Your task to perform on an android device: turn pop-ups off in chrome Image 0: 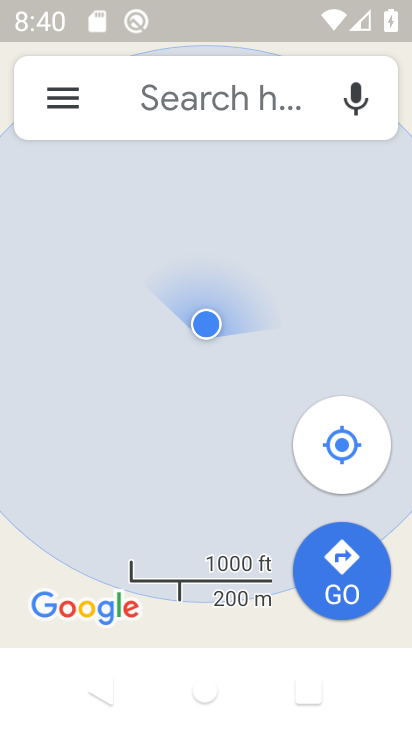
Step 0: press home button
Your task to perform on an android device: turn pop-ups off in chrome Image 1: 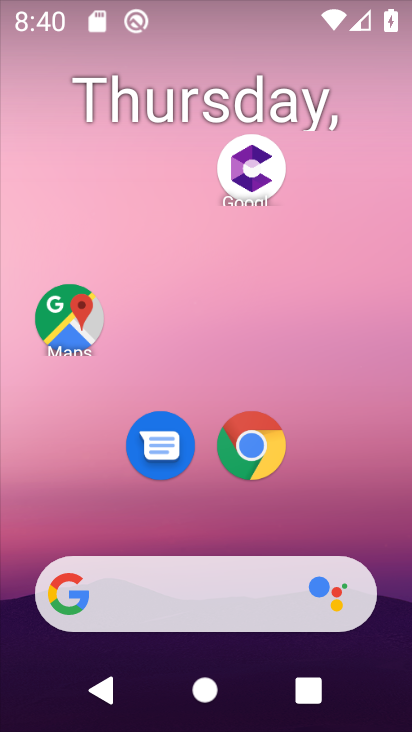
Step 1: click (253, 461)
Your task to perform on an android device: turn pop-ups off in chrome Image 2: 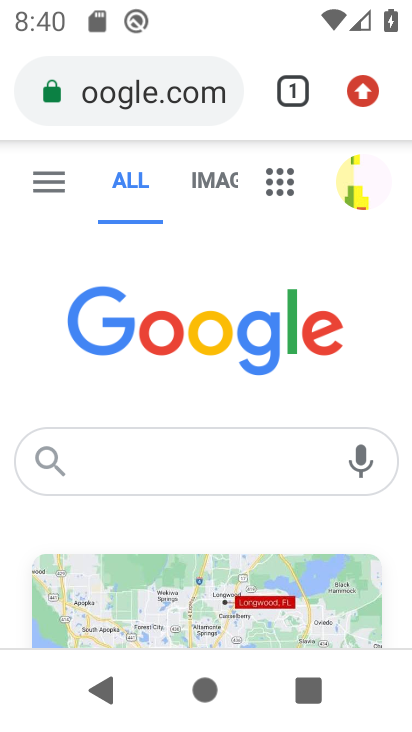
Step 2: click (361, 89)
Your task to perform on an android device: turn pop-ups off in chrome Image 3: 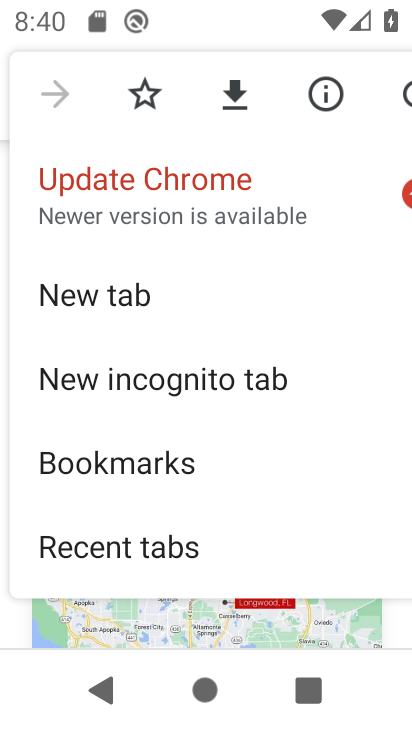
Step 3: drag from (198, 538) to (232, 102)
Your task to perform on an android device: turn pop-ups off in chrome Image 4: 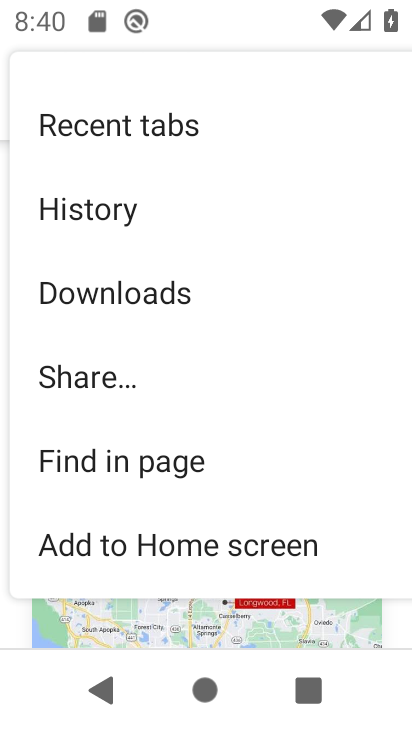
Step 4: drag from (231, 405) to (249, 78)
Your task to perform on an android device: turn pop-ups off in chrome Image 5: 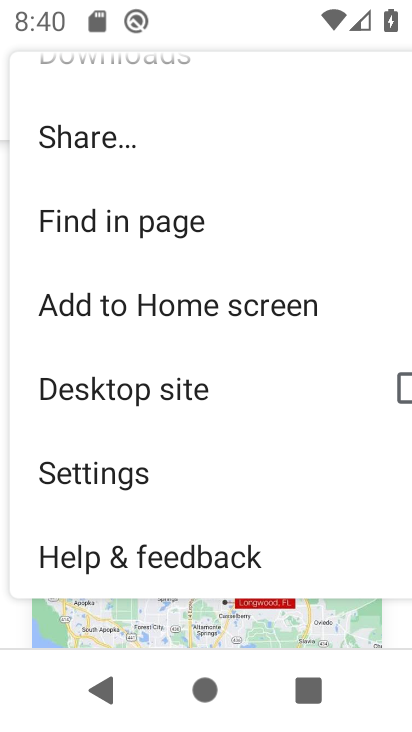
Step 5: click (96, 470)
Your task to perform on an android device: turn pop-ups off in chrome Image 6: 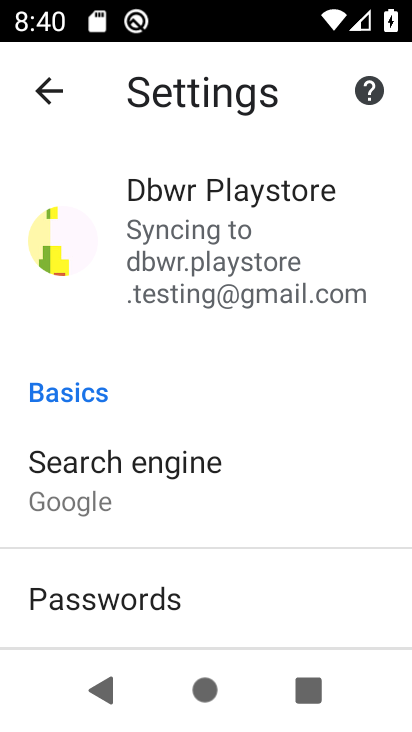
Step 6: drag from (192, 606) to (229, 18)
Your task to perform on an android device: turn pop-ups off in chrome Image 7: 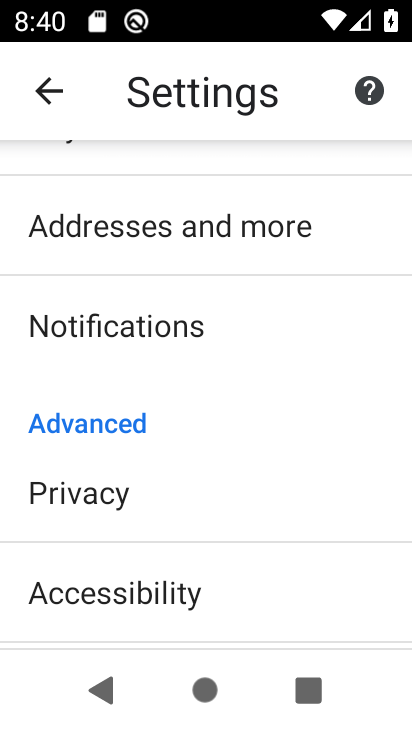
Step 7: drag from (223, 627) to (266, 101)
Your task to perform on an android device: turn pop-ups off in chrome Image 8: 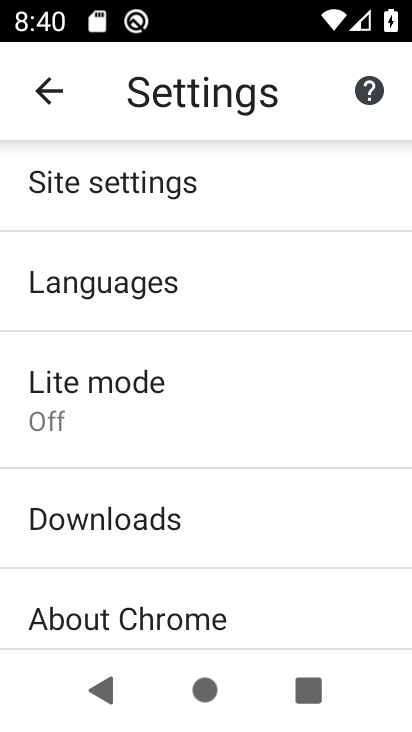
Step 8: click (201, 192)
Your task to perform on an android device: turn pop-ups off in chrome Image 9: 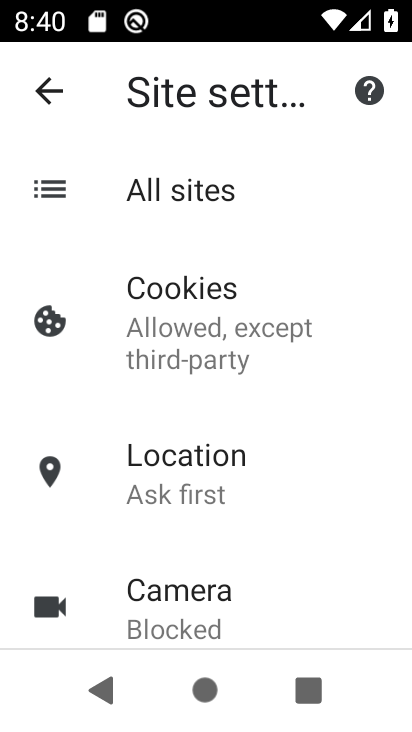
Step 9: drag from (241, 616) to (293, 107)
Your task to perform on an android device: turn pop-ups off in chrome Image 10: 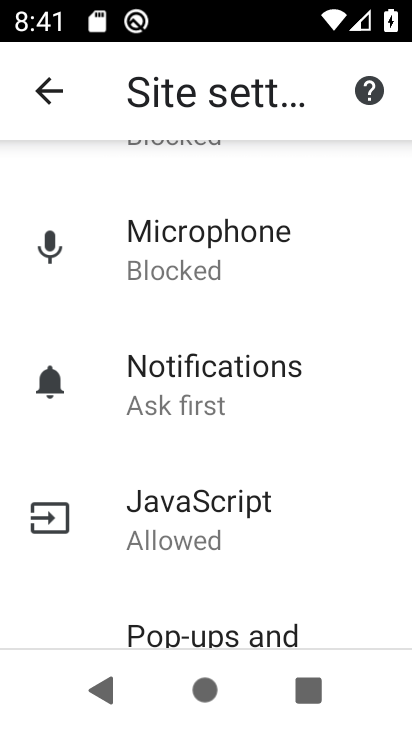
Step 10: click (269, 644)
Your task to perform on an android device: turn pop-ups off in chrome Image 11: 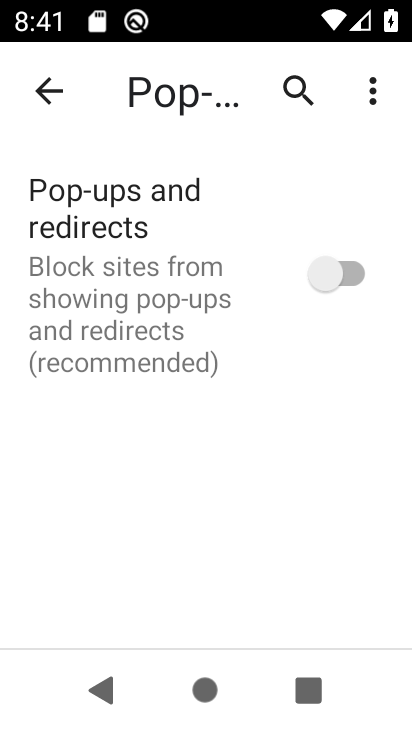
Step 11: task complete